Your task to perform on an android device: open a bookmark in the chrome app Image 0: 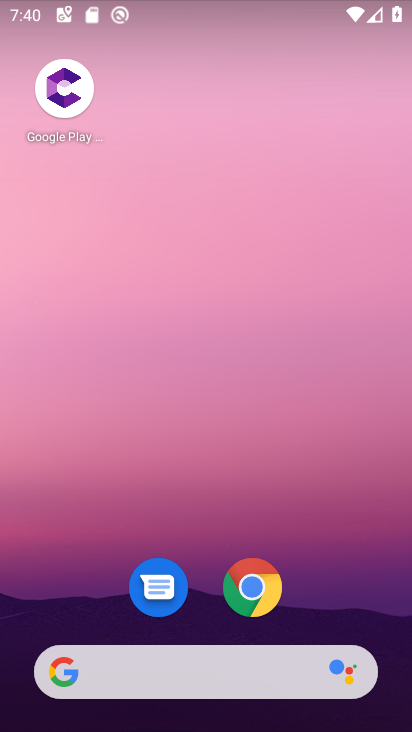
Step 0: click (273, 587)
Your task to perform on an android device: open a bookmark in the chrome app Image 1: 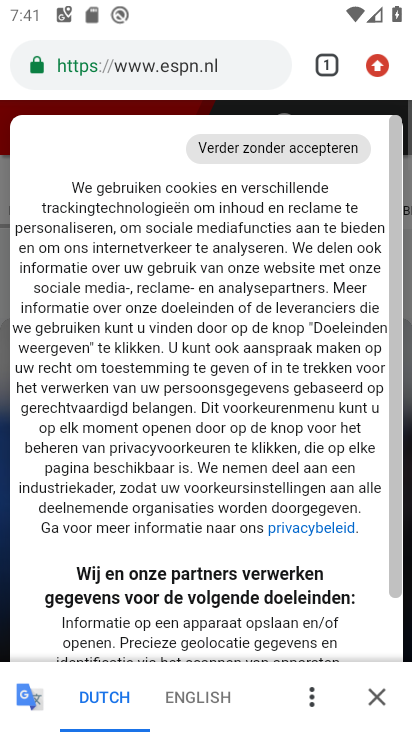
Step 1: click (381, 74)
Your task to perform on an android device: open a bookmark in the chrome app Image 2: 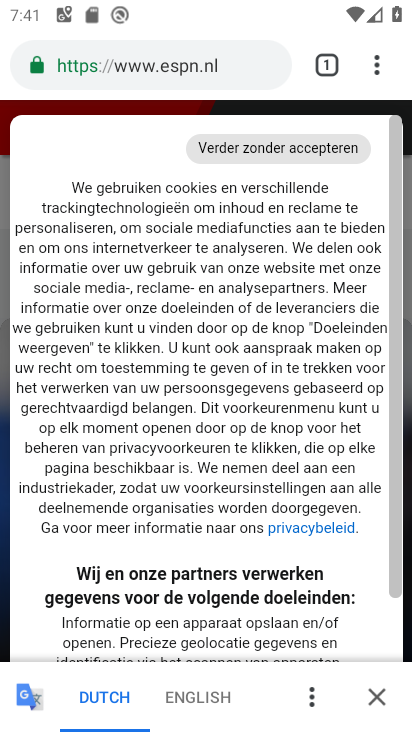
Step 2: click (377, 61)
Your task to perform on an android device: open a bookmark in the chrome app Image 3: 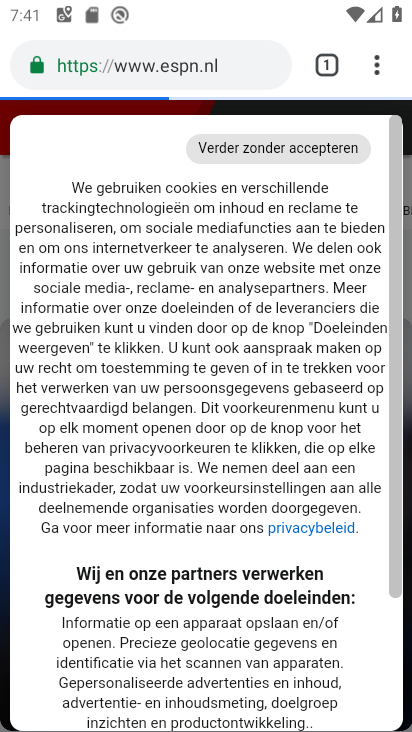
Step 3: click (377, 61)
Your task to perform on an android device: open a bookmark in the chrome app Image 4: 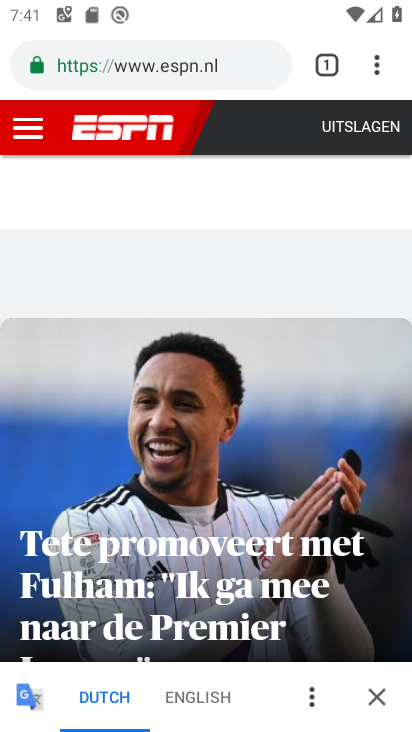
Step 4: click (377, 61)
Your task to perform on an android device: open a bookmark in the chrome app Image 5: 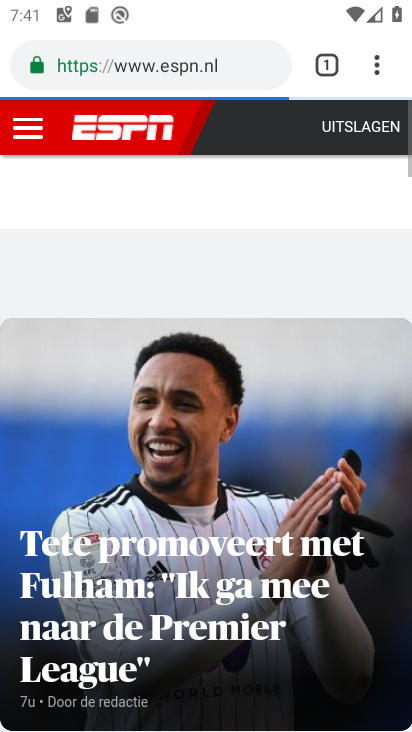
Step 5: click (377, 61)
Your task to perform on an android device: open a bookmark in the chrome app Image 6: 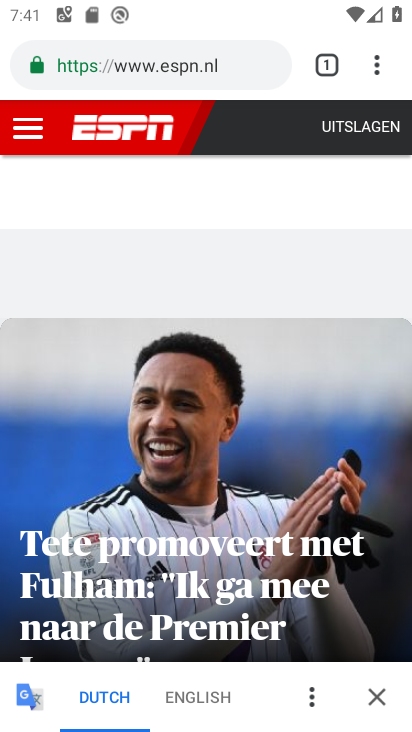
Step 6: click (377, 61)
Your task to perform on an android device: open a bookmark in the chrome app Image 7: 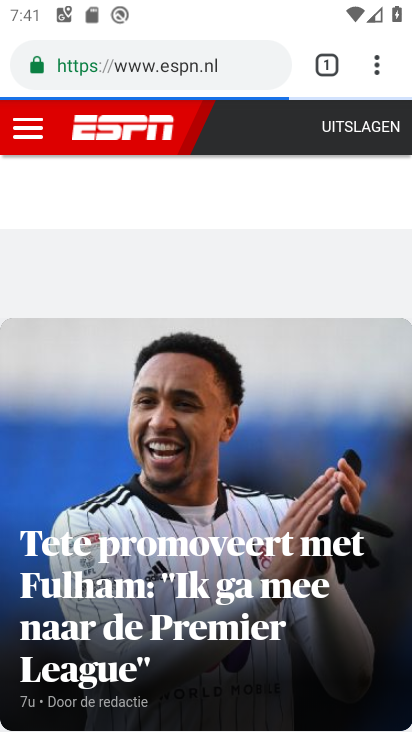
Step 7: click (377, 61)
Your task to perform on an android device: open a bookmark in the chrome app Image 8: 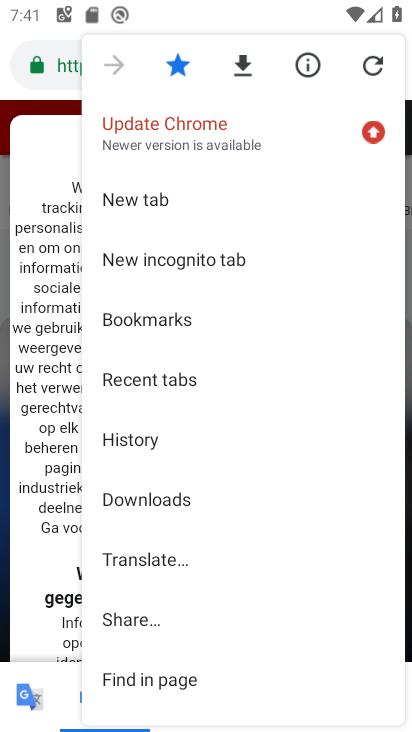
Step 8: click (291, 133)
Your task to perform on an android device: open a bookmark in the chrome app Image 9: 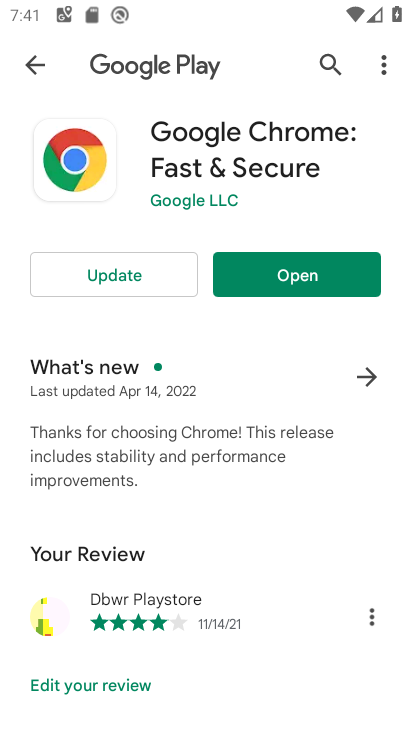
Step 9: click (137, 289)
Your task to perform on an android device: open a bookmark in the chrome app Image 10: 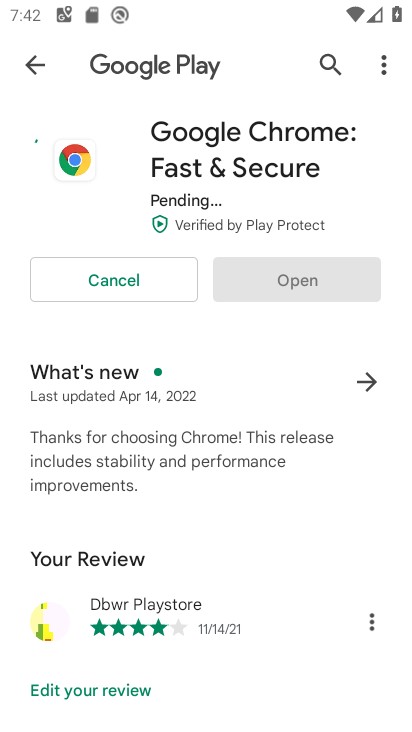
Step 10: task complete